Your task to perform on an android device: refresh tabs in the chrome app Image 0: 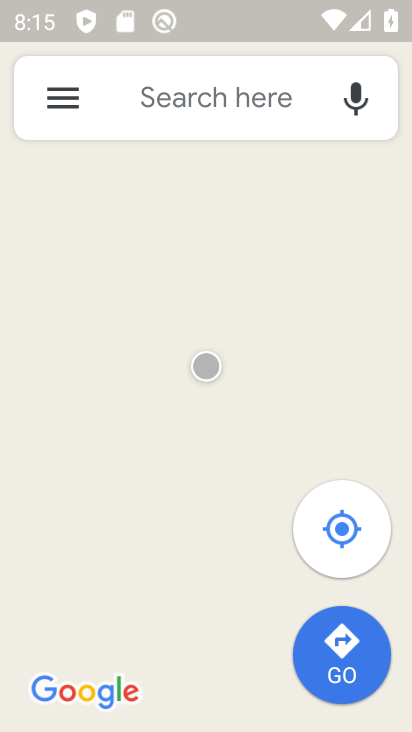
Step 0: press home button
Your task to perform on an android device: refresh tabs in the chrome app Image 1: 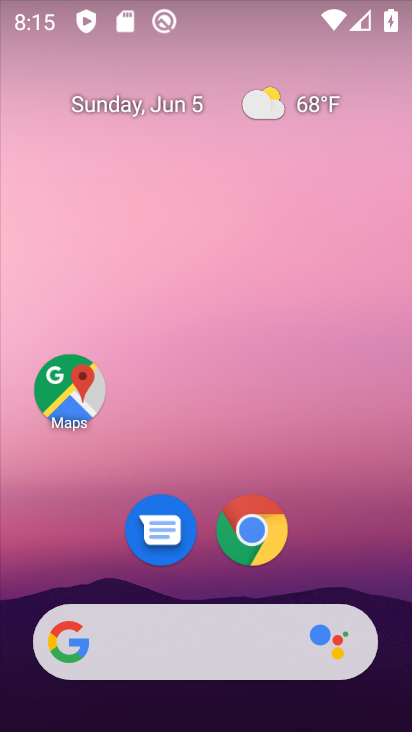
Step 1: click (255, 533)
Your task to perform on an android device: refresh tabs in the chrome app Image 2: 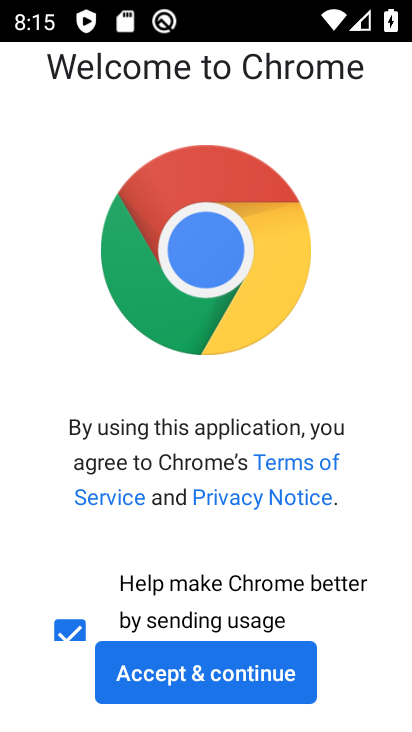
Step 2: click (194, 679)
Your task to perform on an android device: refresh tabs in the chrome app Image 3: 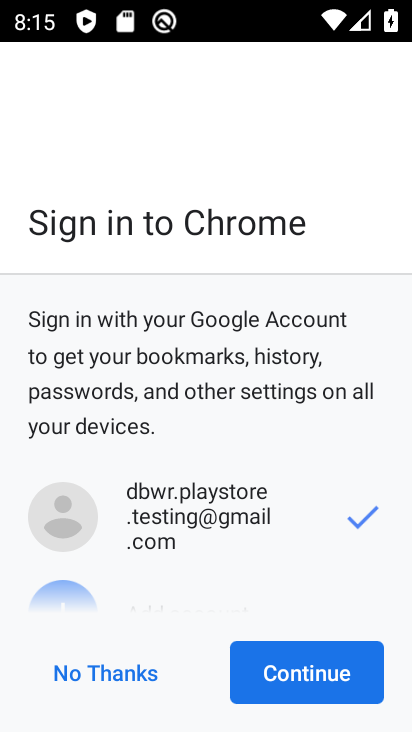
Step 3: click (319, 672)
Your task to perform on an android device: refresh tabs in the chrome app Image 4: 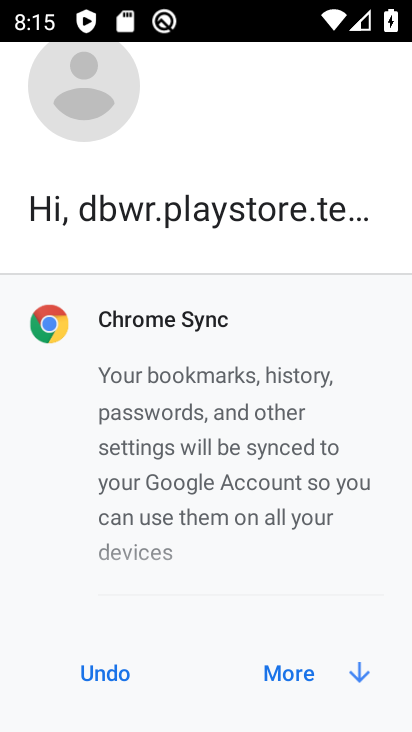
Step 4: click (319, 672)
Your task to perform on an android device: refresh tabs in the chrome app Image 5: 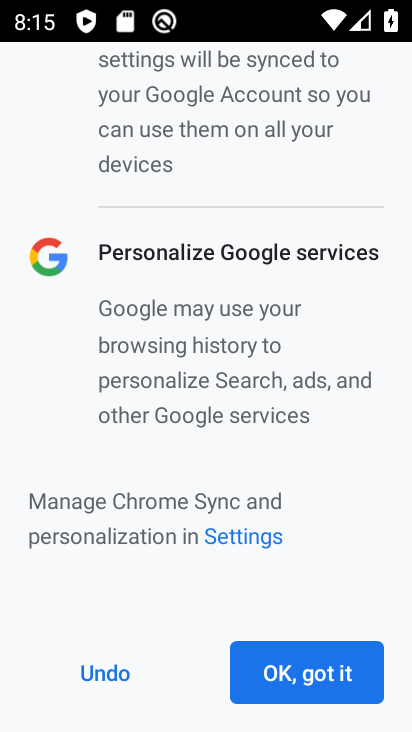
Step 5: click (319, 672)
Your task to perform on an android device: refresh tabs in the chrome app Image 6: 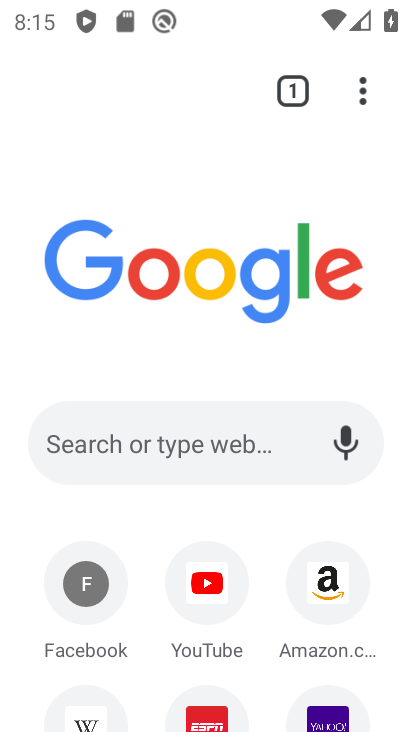
Step 6: click (362, 105)
Your task to perform on an android device: refresh tabs in the chrome app Image 7: 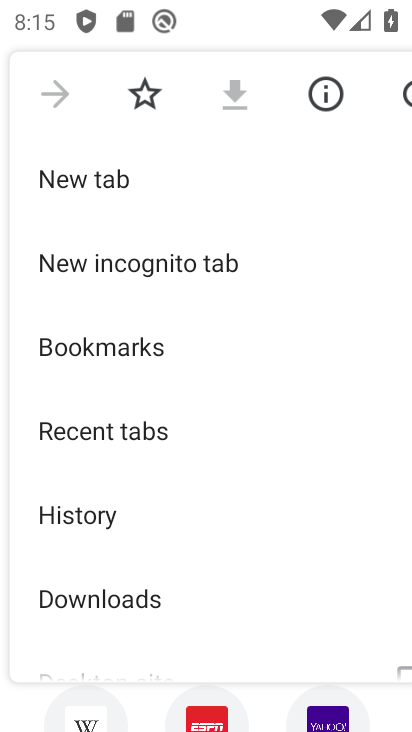
Step 7: click (404, 90)
Your task to perform on an android device: refresh tabs in the chrome app Image 8: 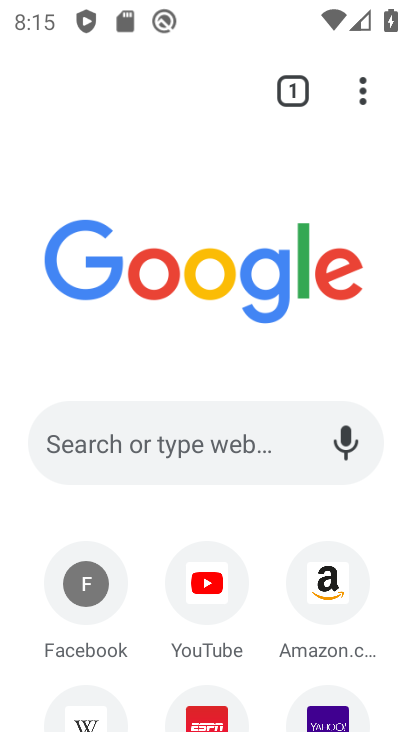
Step 8: task complete